Your task to perform on an android device: check battery use Image 0: 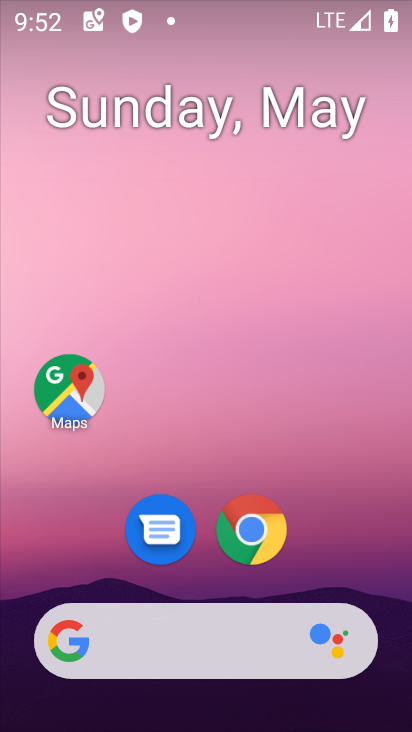
Step 0: drag from (340, 542) to (340, 72)
Your task to perform on an android device: check battery use Image 1: 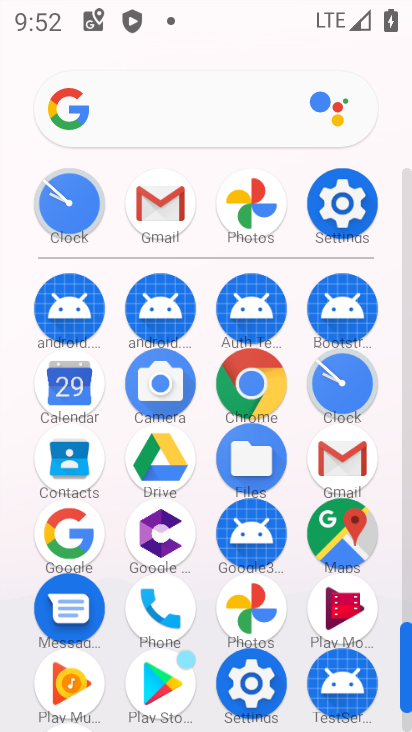
Step 1: click (353, 231)
Your task to perform on an android device: check battery use Image 2: 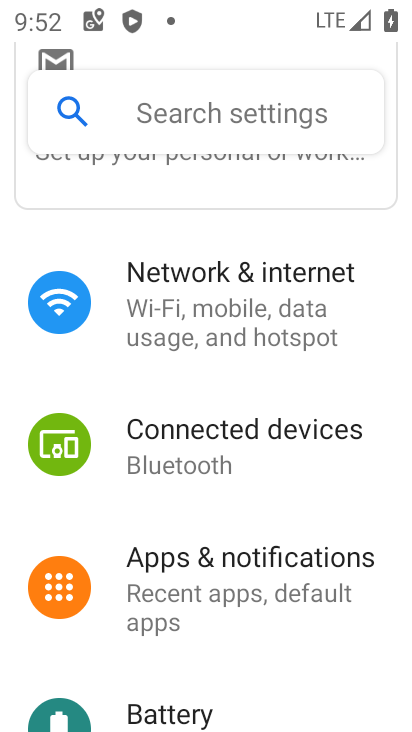
Step 2: click (177, 710)
Your task to perform on an android device: check battery use Image 3: 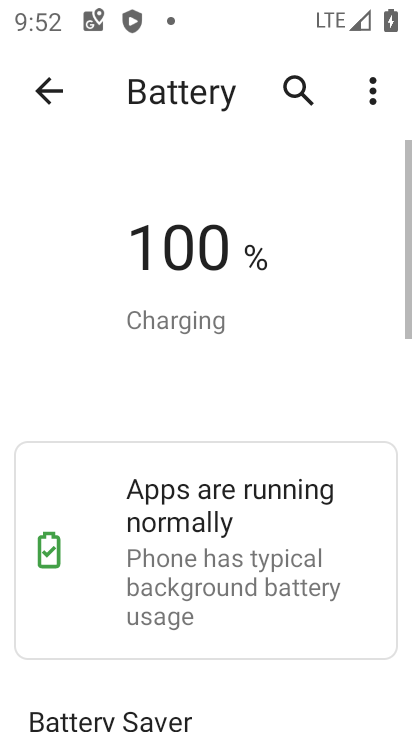
Step 3: task complete